Your task to perform on an android device: Search for sushi restaurants on Maps Image 0: 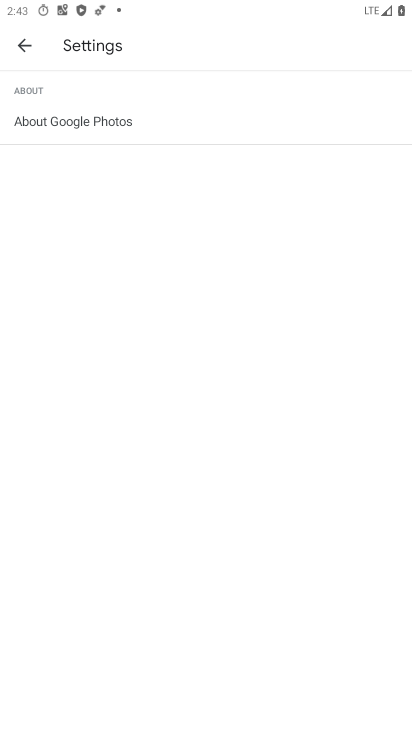
Step 0: press home button
Your task to perform on an android device: Search for sushi restaurants on Maps Image 1: 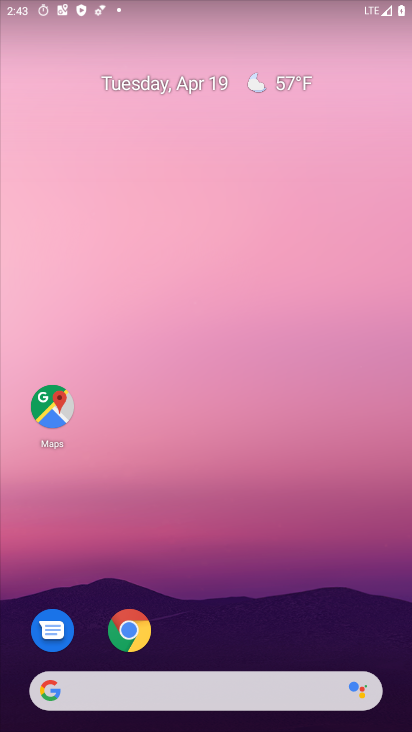
Step 1: click (47, 407)
Your task to perform on an android device: Search for sushi restaurants on Maps Image 2: 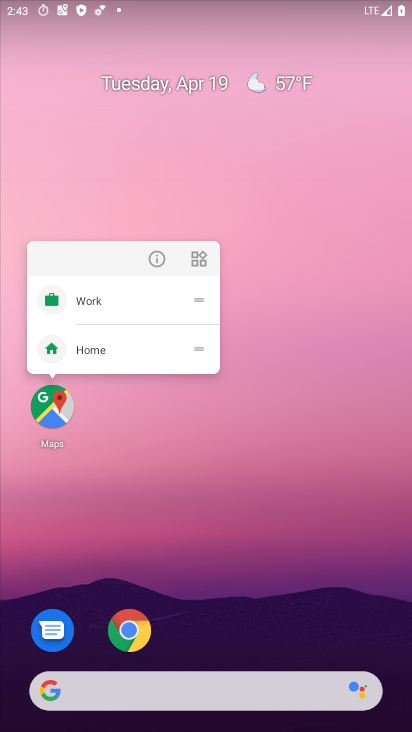
Step 2: click (50, 411)
Your task to perform on an android device: Search for sushi restaurants on Maps Image 3: 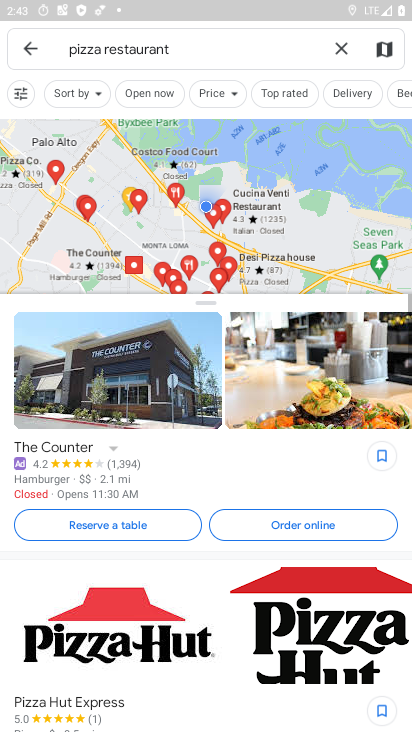
Step 3: click (337, 51)
Your task to perform on an android device: Search for sushi restaurants on Maps Image 4: 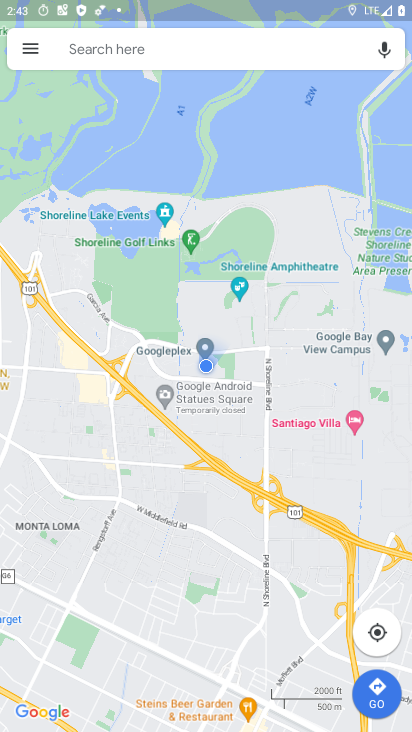
Step 4: click (164, 44)
Your task to perform on an android device: Search for sushi restaurants on Maps Image 5: 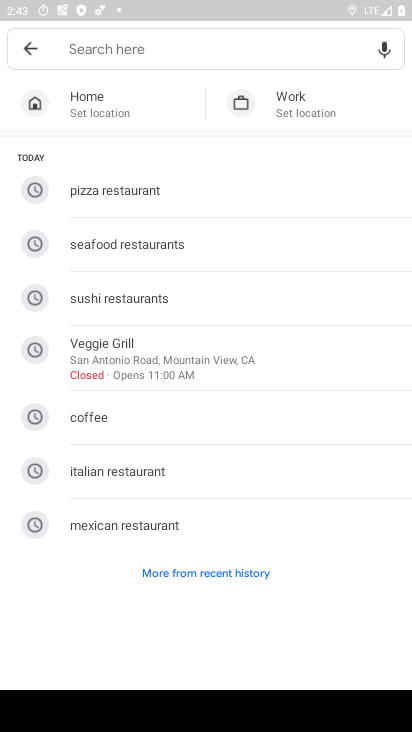
Step 5: click (143, 293)
Your task to perform on an android device: Search for sushi restaurants on Maps Image 6: 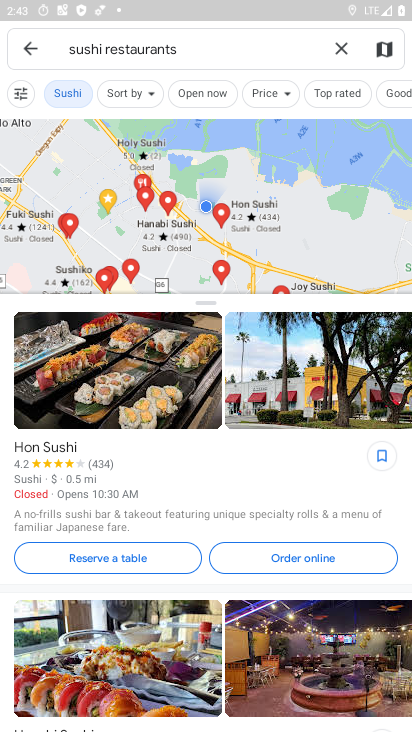
Step 6: task complete